Your task to perform on an android device: Open privacy settings Image 0: 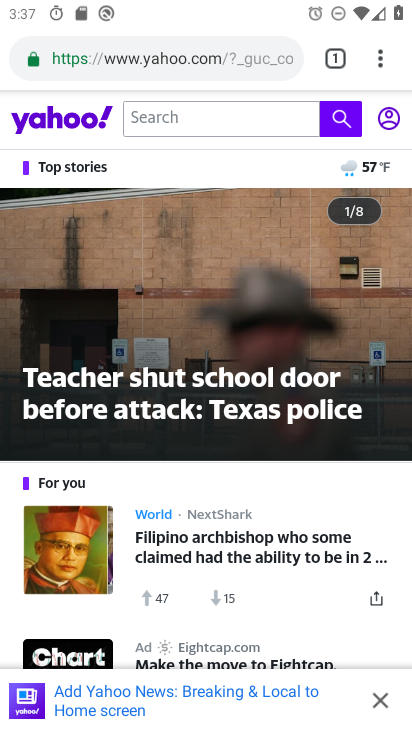
Step 0: press home button
Your task to perform on an android device: Open privacy settings Image 1: 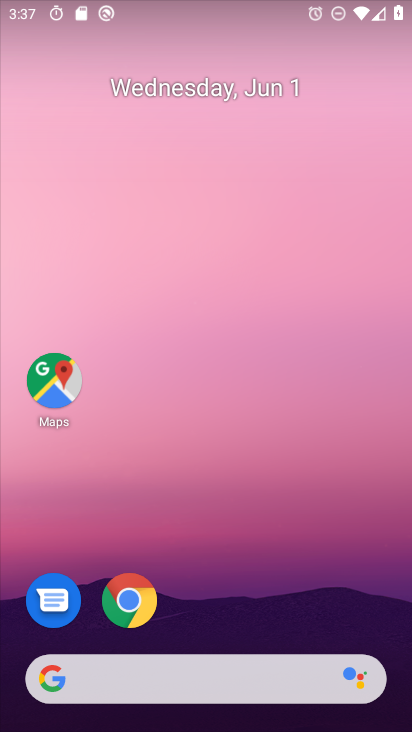
Step 1: drag from (253, 616) to (253, 247)
Your task to perform on an android device: Open privacy settings Image 2: 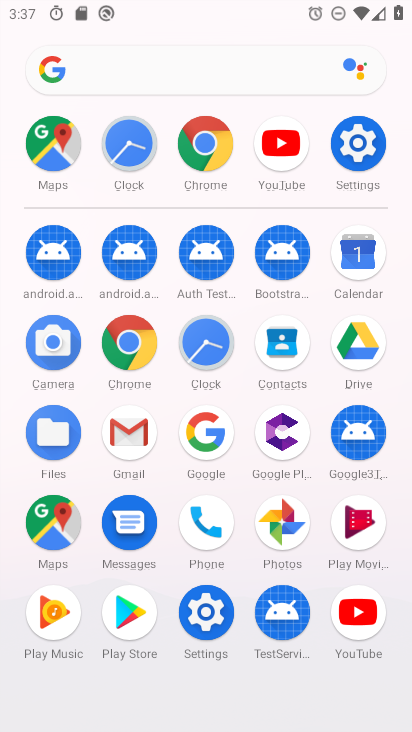
Step 2: click (355, 151)
Your task to perform on an android device: Open privacy settings Image 3: 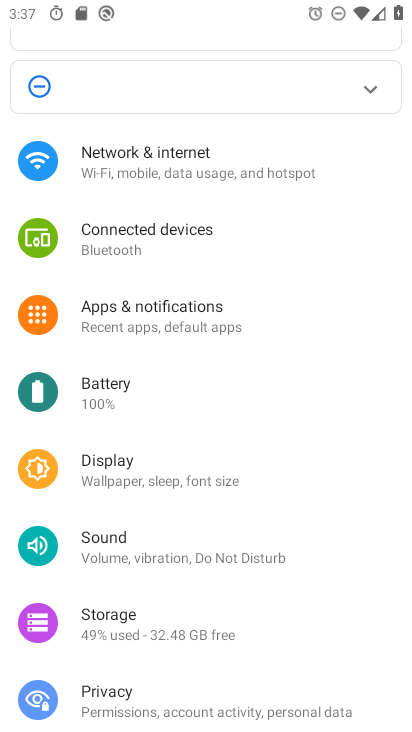
Step 3: drag from (131, 619) to (137, 383)
Your task to perform on an android device: Open privacy settings Image 4: 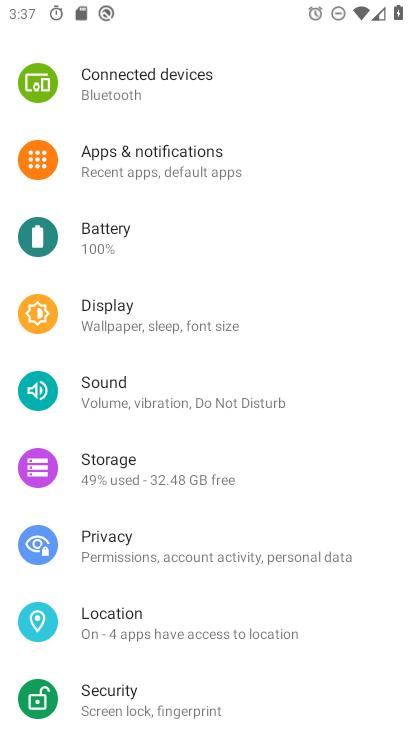
Step 4: click (113, 550)
Your task to perform on an android device: Open privacy settings Image 5: 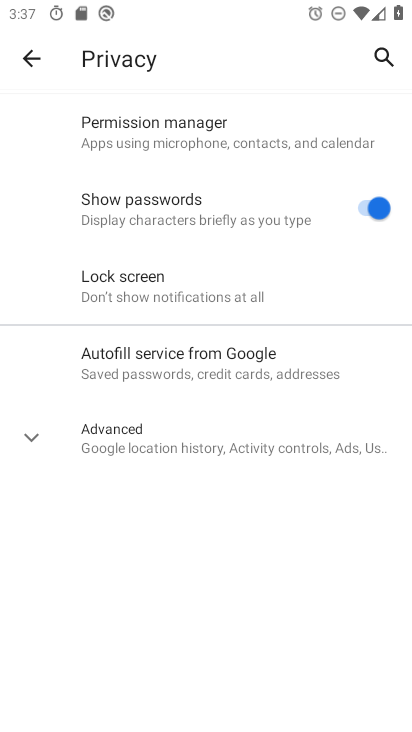
Step 5: task complete